Your task to perform on an android device: open app "NewsBreak: Local News & Alerts" (install if not already installed), go to login, and select forgot password Image 0: 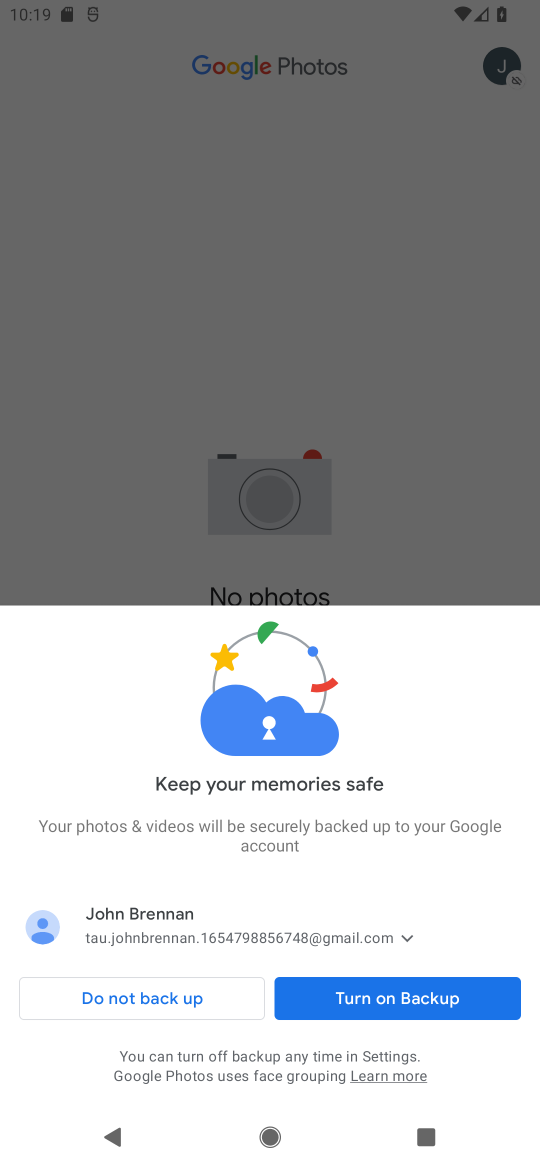
Step 0: press back button
Your task to perform on an android device: open app "NewsBreak: Local News & Alerts" (install if not already installed), go to login, and select forgot password Image 1: 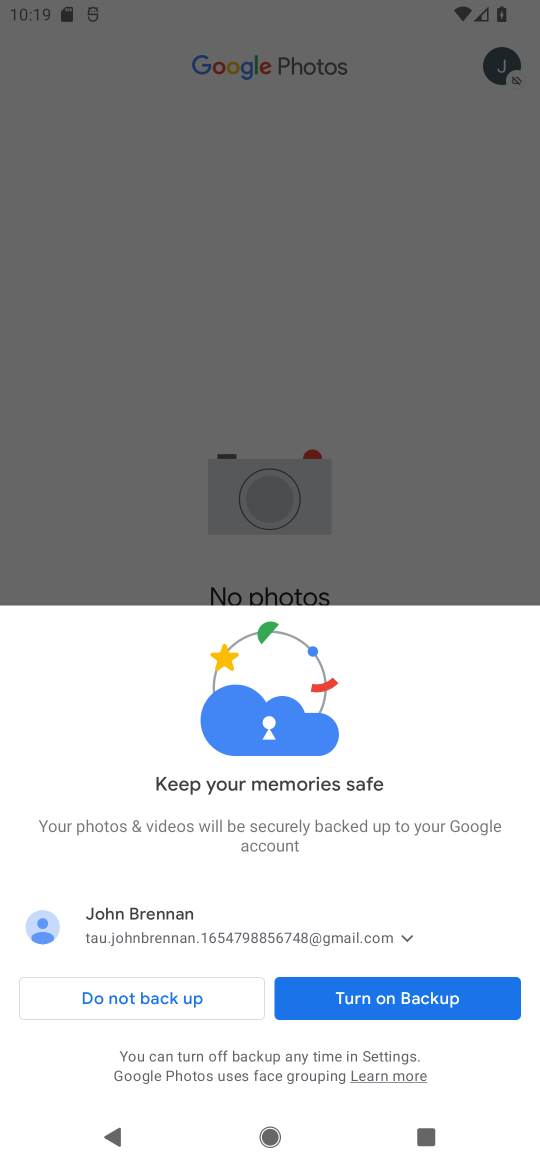
Step 1: press back button
Your task to perform on an android device: open app "NewsBreak: Local News & Alerts" (install if not already installed), go to login, and select forgot password Image 2: 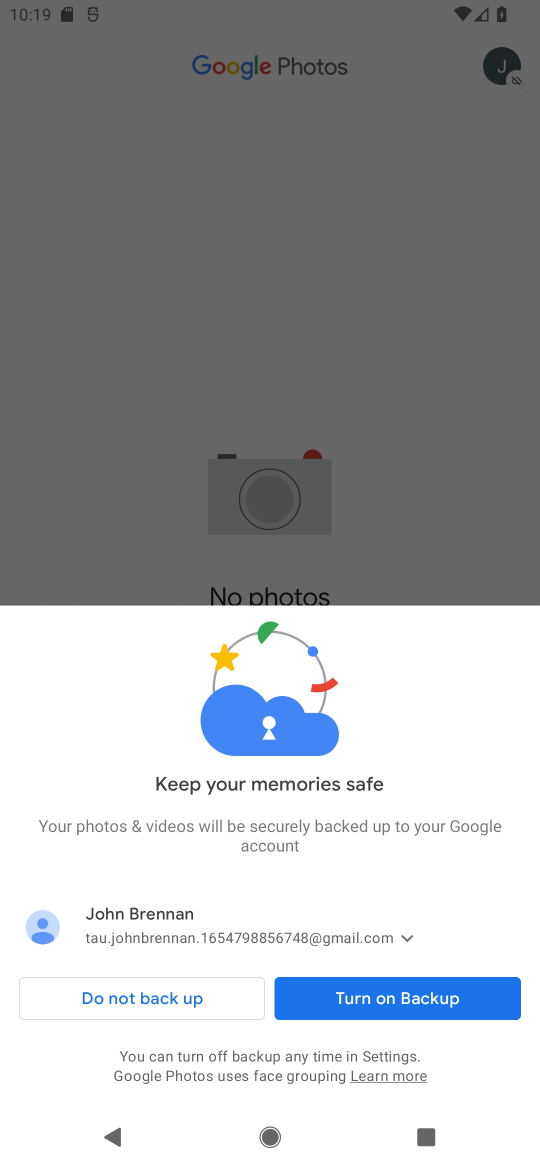
Step 2: press home button
Your task to perform on an android device: open app "NewsBreak: Local News & Alerts" (install if not already installed), go to login, and select forgot password Image 3: 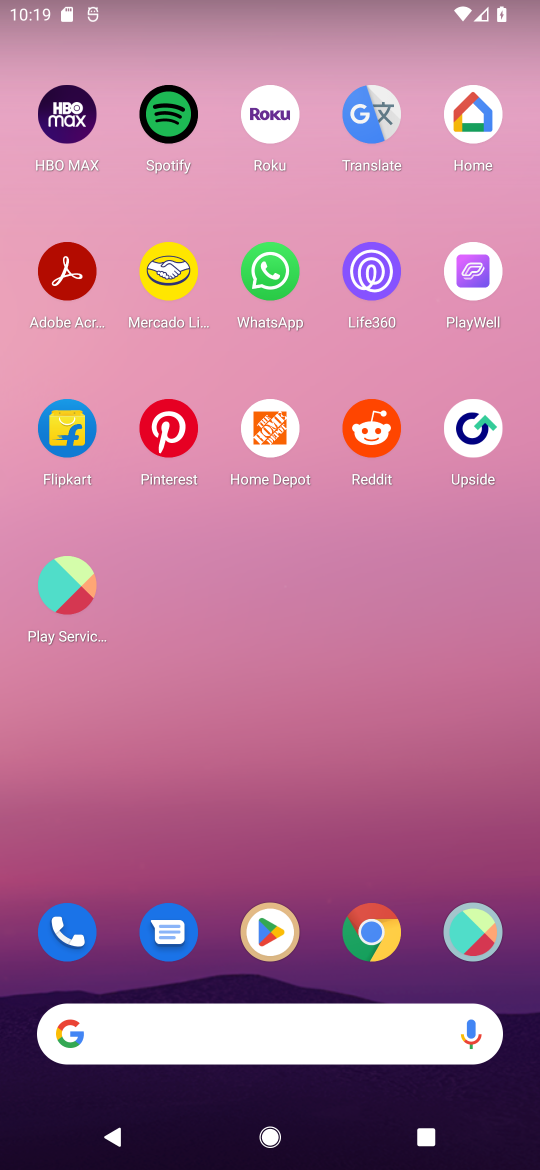
Step 3: click (260, 946)
Your task to perform on an android device: open app "NewsBreak: Local News & Alerts" (install if not already installed), go to login, and select forgot password Image 4: 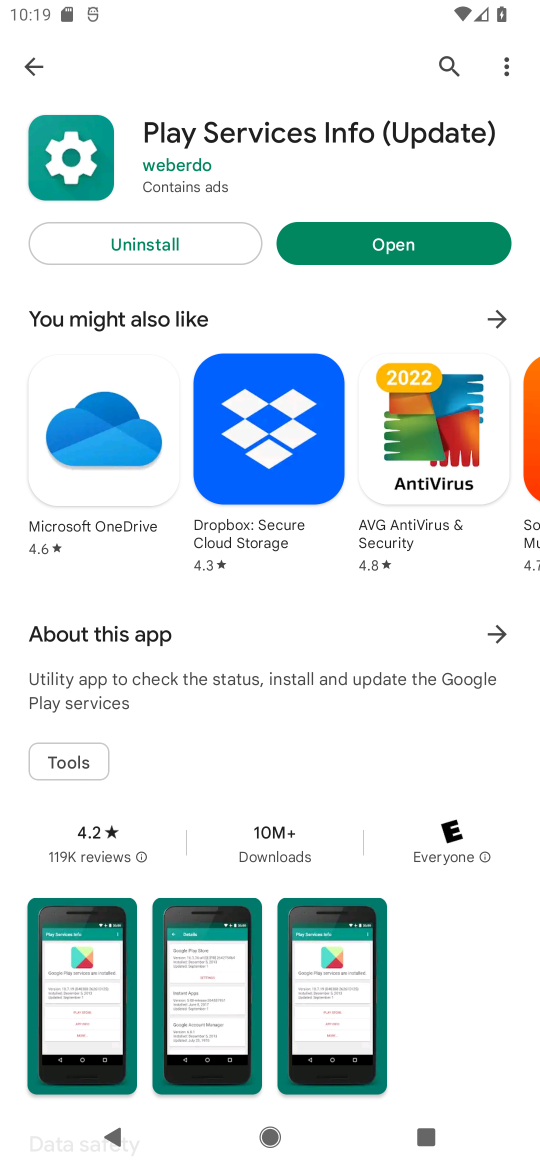
Step 4: click (455, 80)
Your task to perform on an android device: open app "NewsBreak: Local News & Alerts" (install if not already installed), go to login, and select forgot password Image 5: 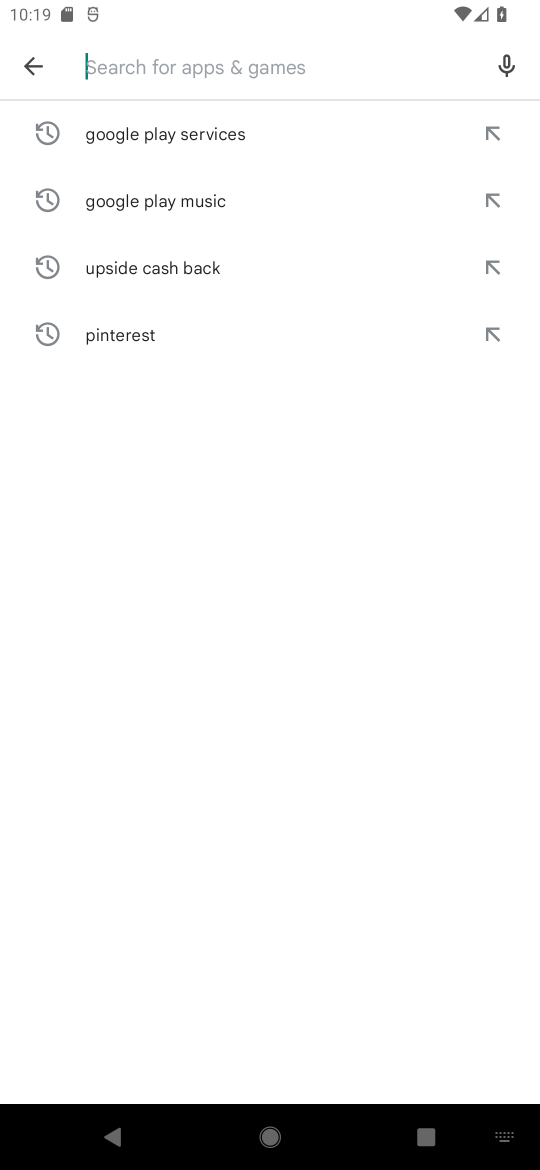
Step 5: click (165, 65)
Your task to perform on an android device: open app "NewsBreak: Local News & Alerts" (install if not already installed), go to login, and select forgot password Image 6: 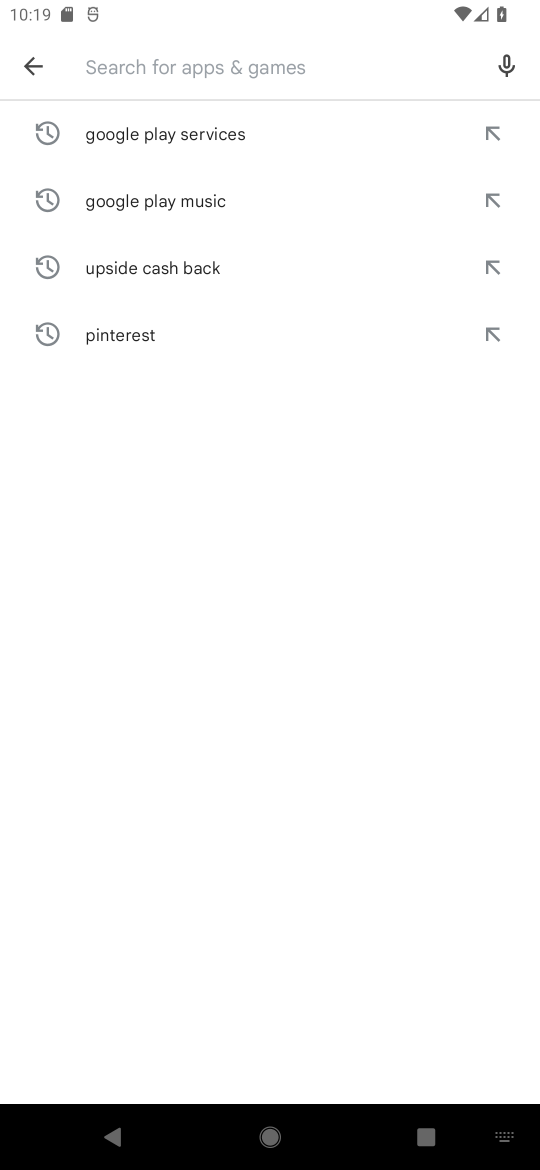
Step 6: type "NewsBreak: Local News & Alerts"
Your task to perform on an android device: open app "NewsBreak: Local News & Alerts" (install if not already installed), go to login, and select forgot password Image 7: 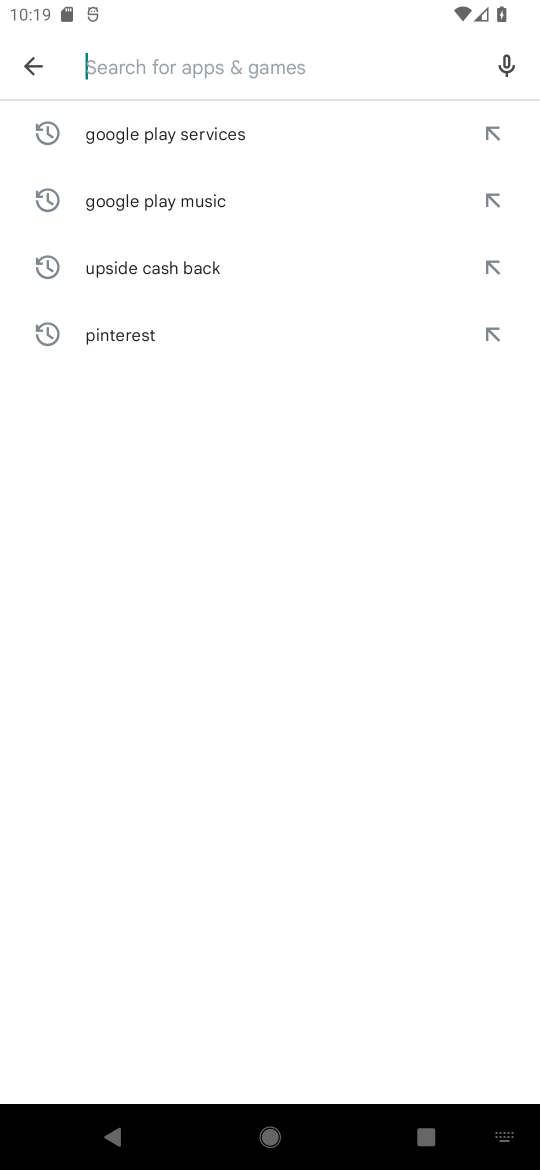
Step 7: click (102, 652)
Your task to perform on an android device: open app "NewsBreak: Local News & Alerts" (install if not already installed), go to login, and select forgot password Image 8: 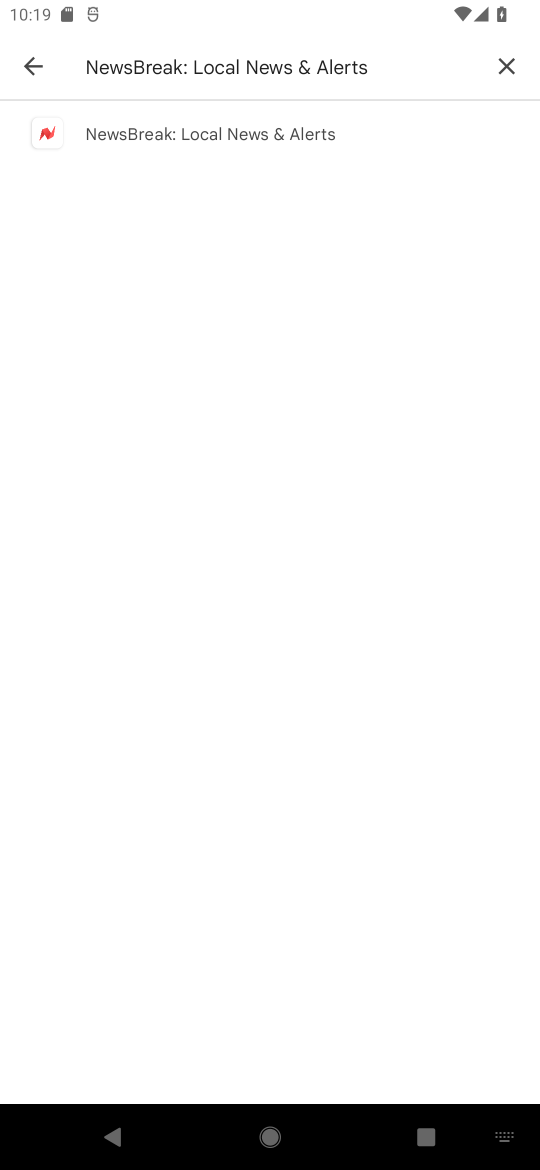
Step 8: click (182, 132)
Your task to perform on an android device: open app "NewsBreak: Local News & Alerts" (install if not already installed), go to login, and select forgot password Image 9: 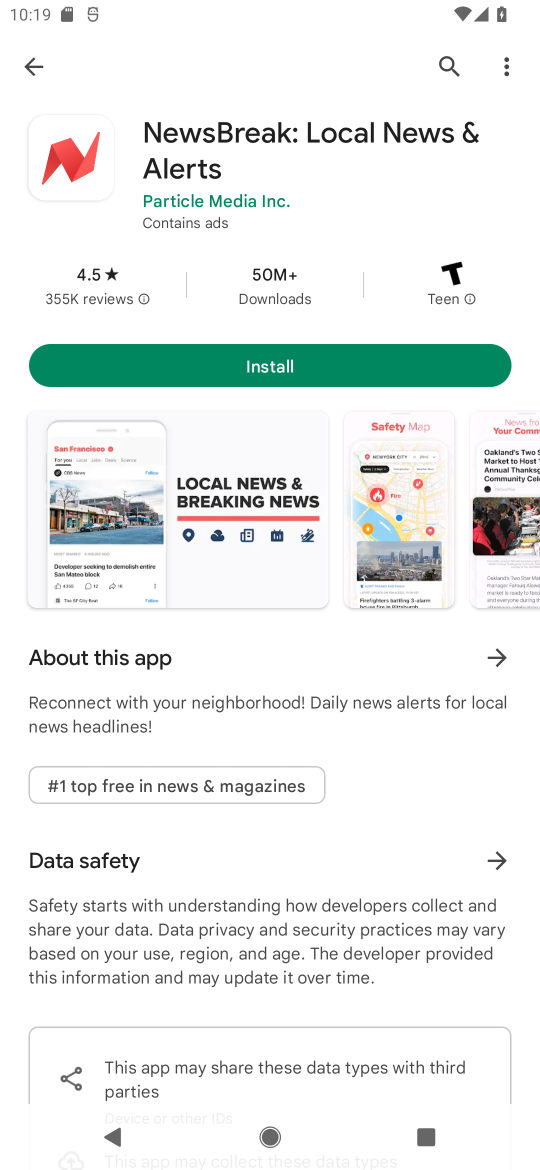
Step 9: click (241, 359)
Your task to perform on an android device: open app "NewsBreak: Local News & Alerts" (install if not already installed), go to login, and select forgot password Image 10: 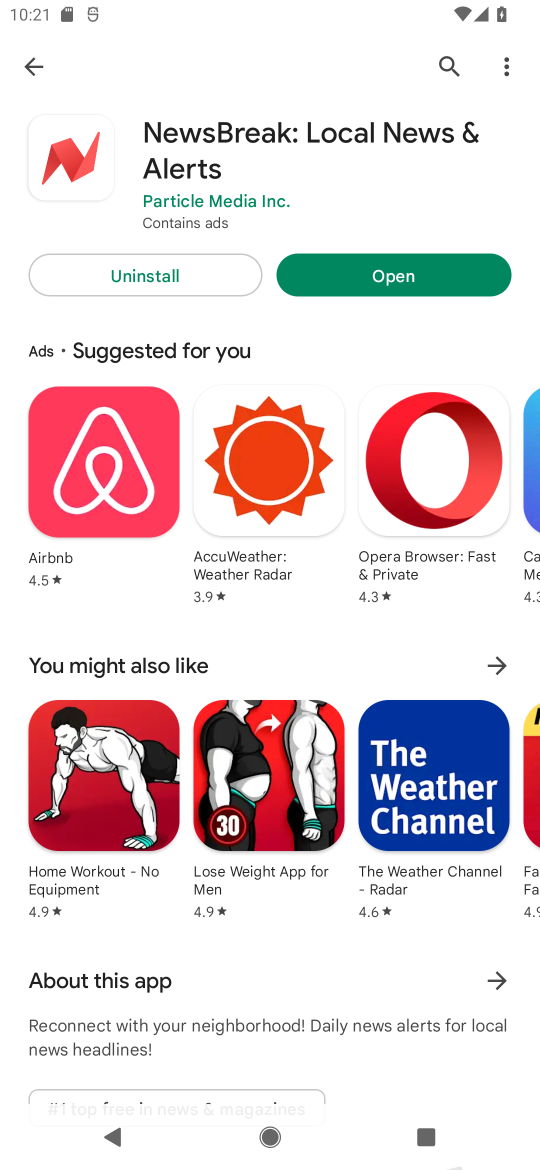
Step 10: click (382, 266)
Your task to perform on an android device: open app "NewsBreak: Local News & Alerts" (install if not already installed), go to login, and select forgot password Image 11: 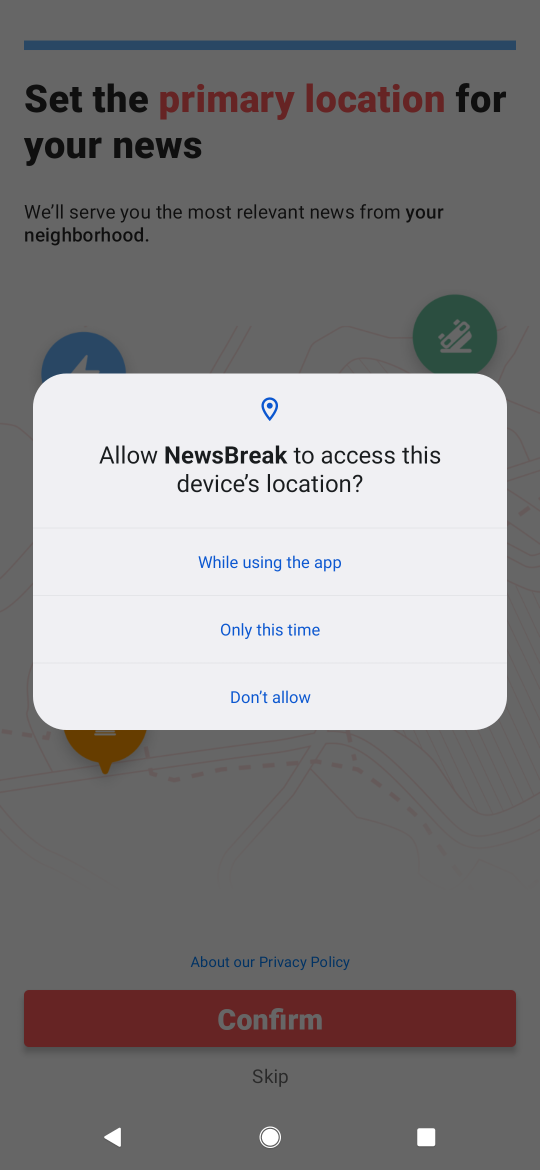
Step 11: click (258, 555)
Your task to perform on an android device: open app "NewsBreak: Local News & Alerts" (install if not already installed), go to login, and select forgot password Image 12: 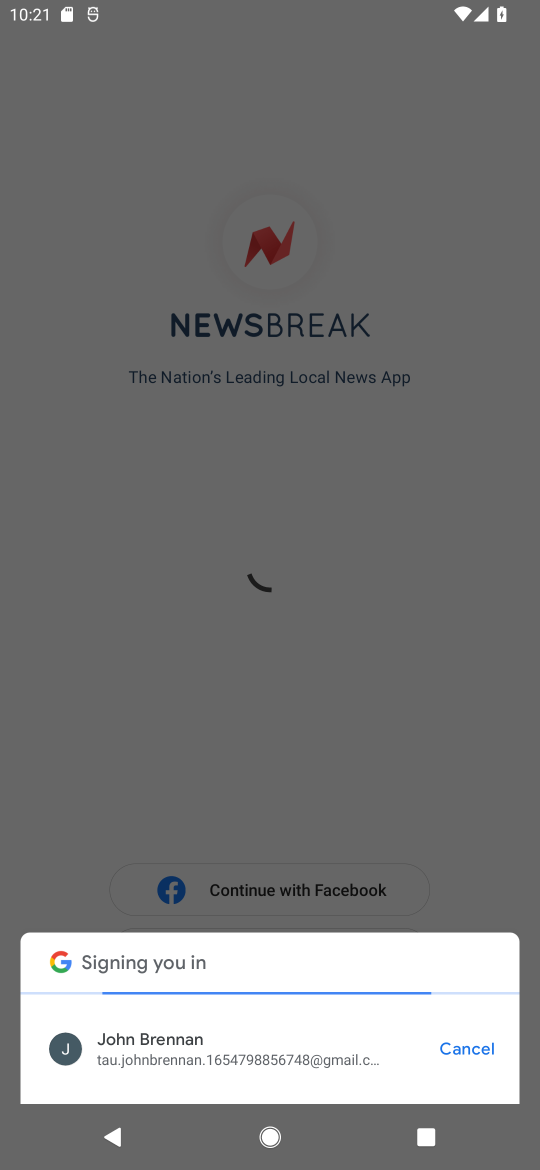
Step 12: click (467, 1056)
Your task to perform on an android device: open app "NewsBreak: Local News & Alerts" (install if not already installed), go to login, and select forgot password Image 13: 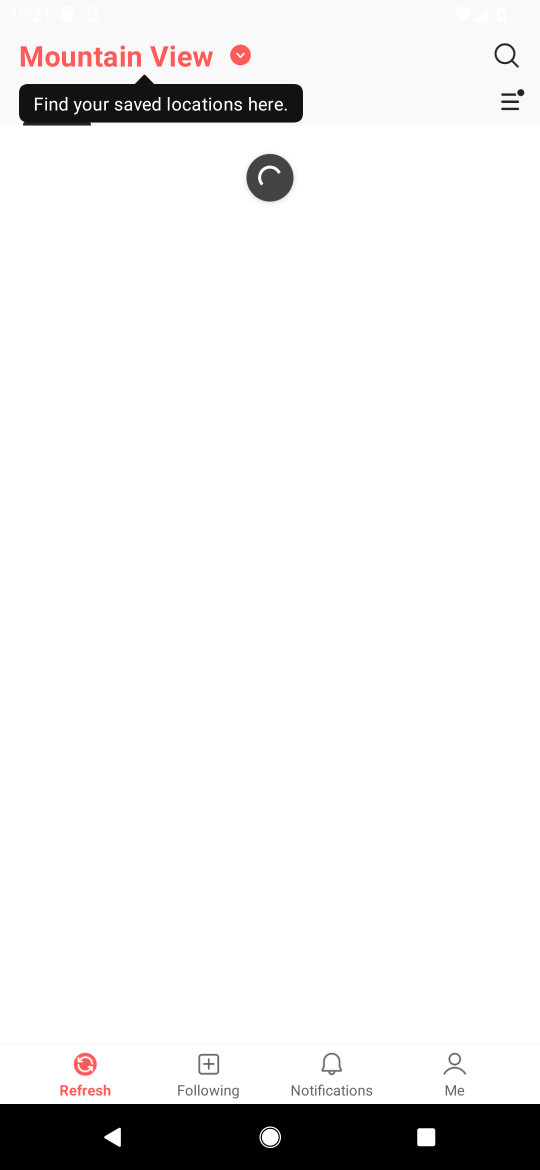
Step 13: task complete